Your task to perform on an android device: change notification settings in the gmail app Image 0: 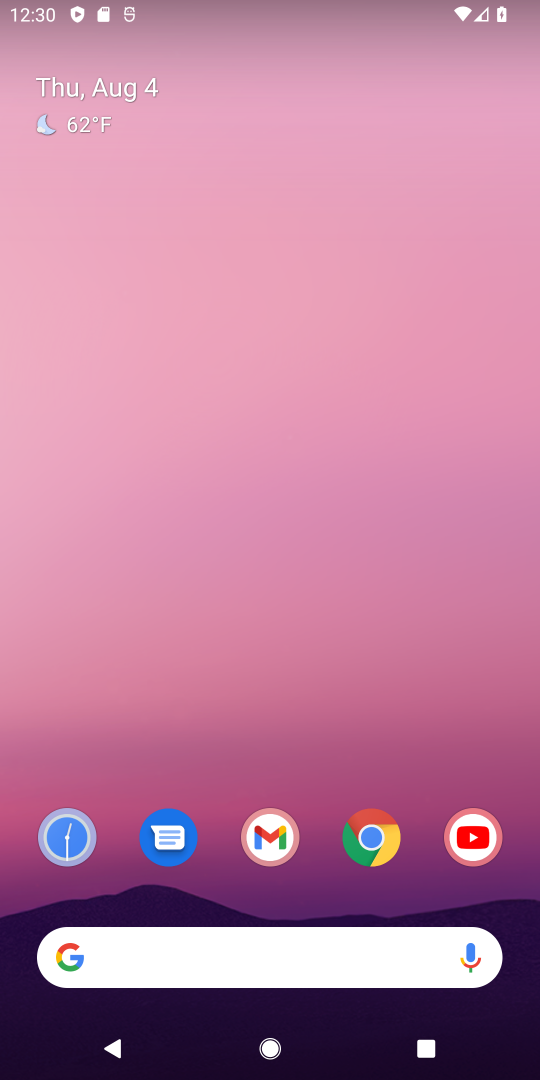
Step 0: click (279, 840)
Your task to perform on an android device: change notification settings in the gmail app Image 1: 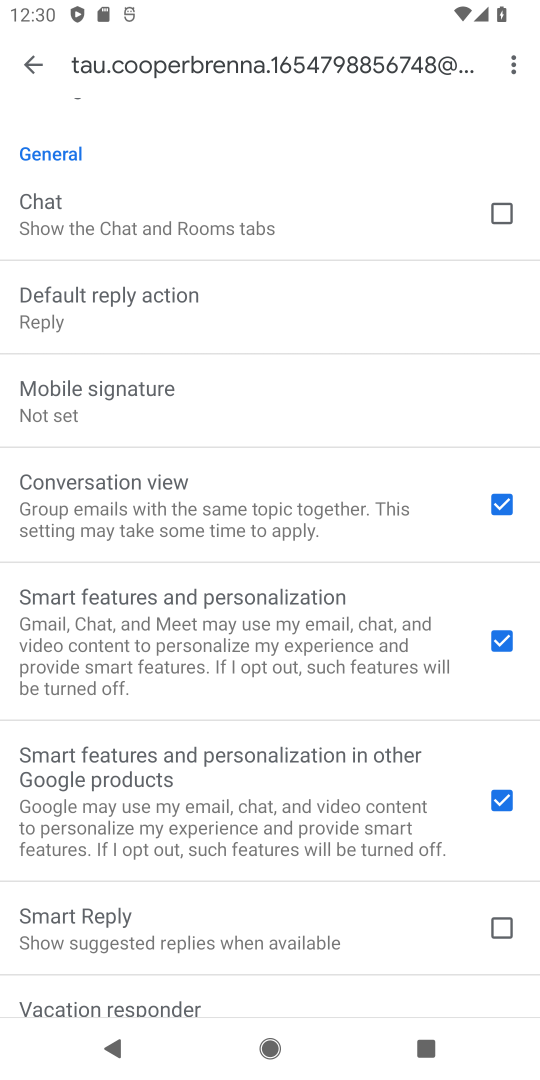
Step 1: drag from (247, 489) to (259, 972)
Your task to perform on an android device: change notification settings in the gmail app Image 2: 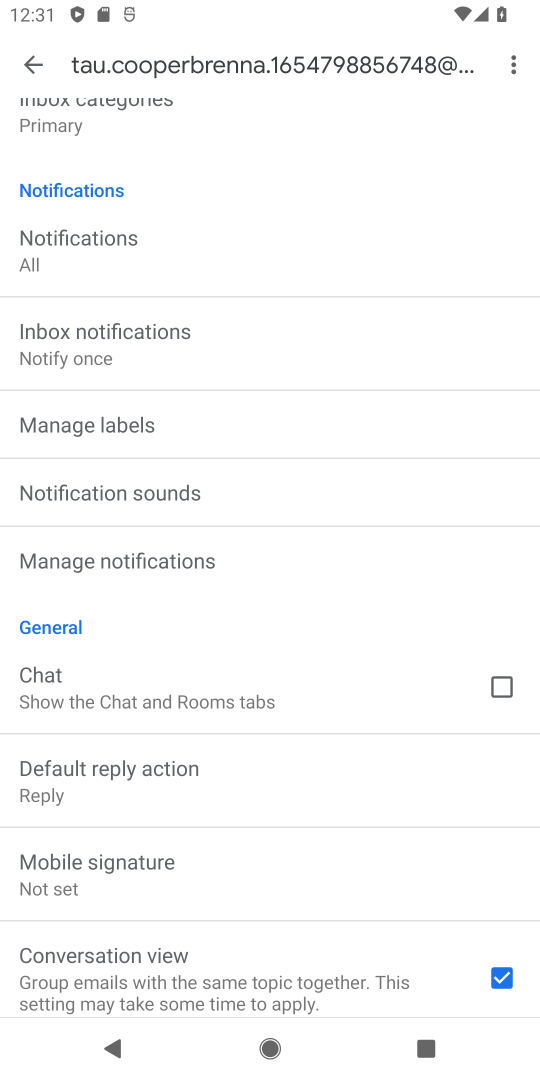
Step 2: click (247, 543)
Your task to perform on an android device: change notification settings in the gmail app Image 3: 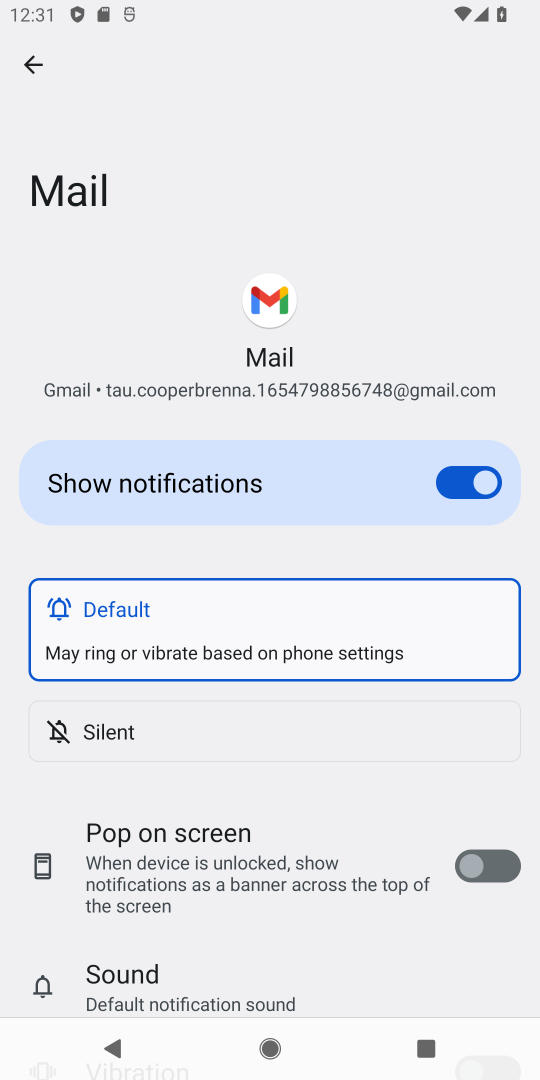
Step 3: click (442, 469)
Your task to perform on an android device: change notification settings in the gmail app Image 4: 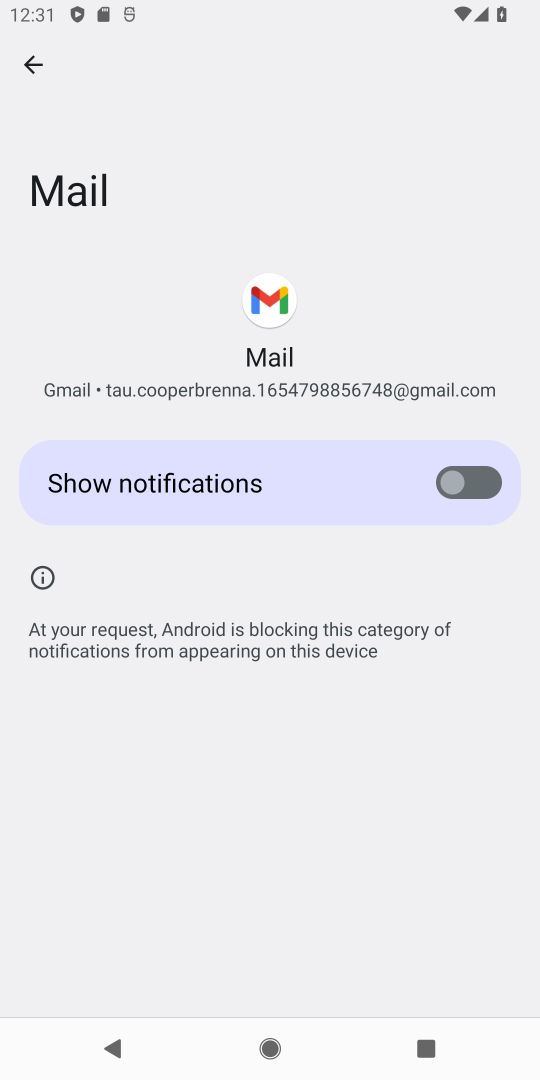
Step 4: task complete